Your task to perform on an android device: set the stopwatch Image 0: 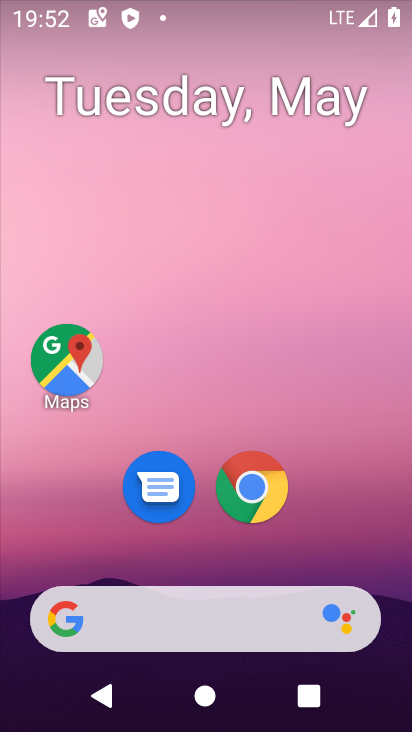
Step 0: click (321, 542)
Your task to perform on an android device: set the stopwatch Image 1: 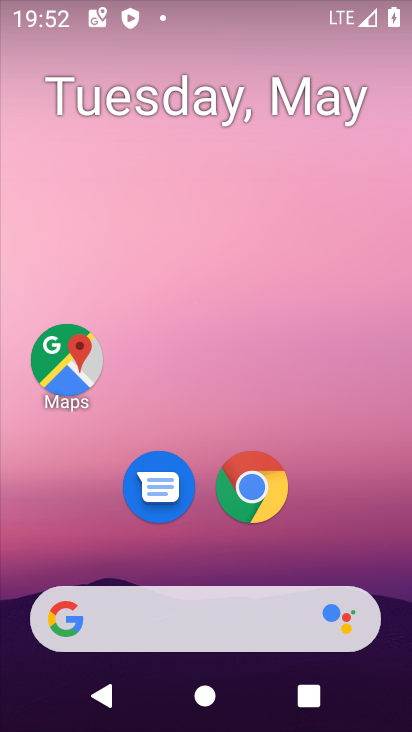
Step 1: drag from (321, 542) to (255, 59)
Your task to perform on an android device: set the stopwatch Image 2: 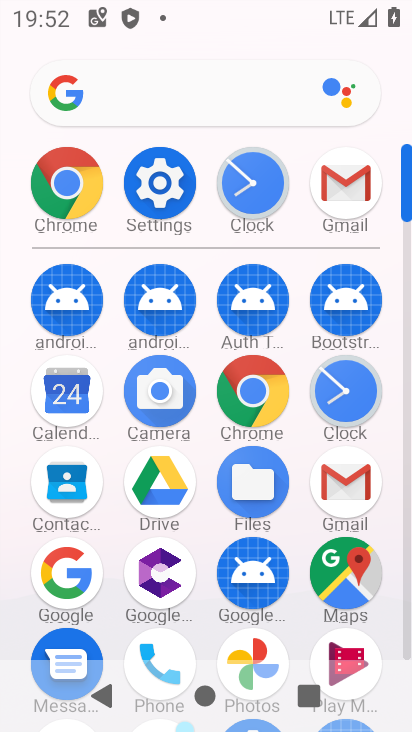
Step 2: click (261, 176)
Your task to perform on an android device: set the stopwatch Image 3: 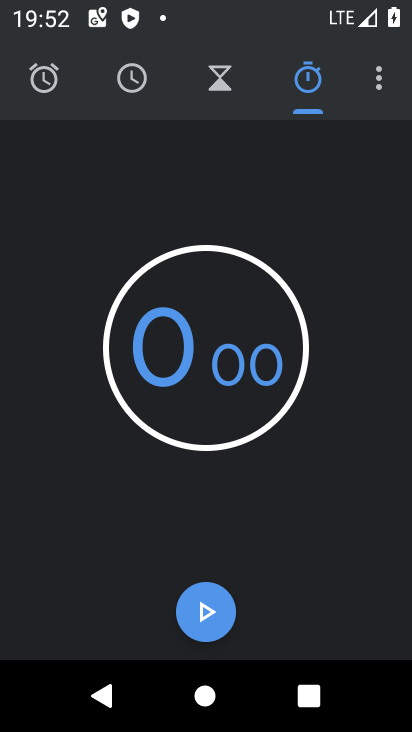
Step 3: task complete